Your task to perform on an android device: open chrome and create a bookmark for the current page Image 0: 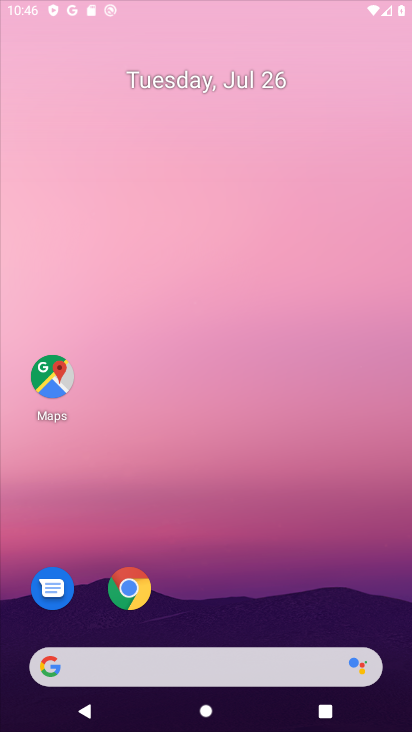
Step 0: press home button
Your task to perform on an android device: open chrome and create a bookmark for the current page Image 1: 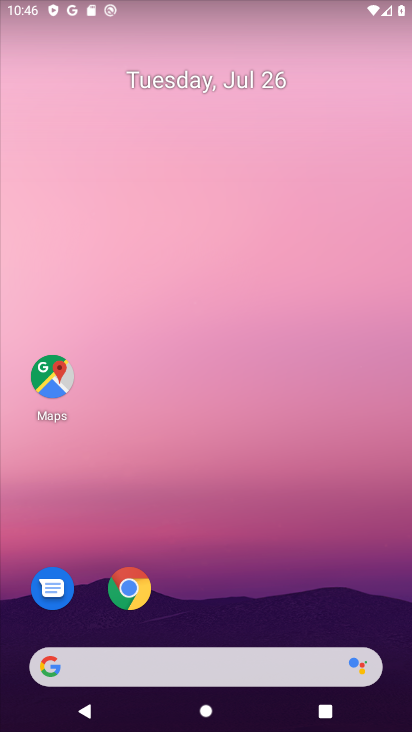
Step 1: drag from (197, 626) to (234, 5)
Your task to perform on an android device: open chrome and create a bookmark for the current page Image 2: 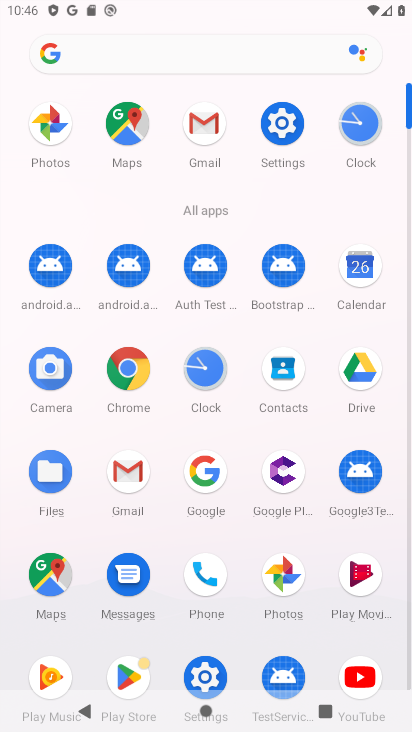
Step 2: click (128, 368)
Your task to perform on an android device: open chrome and create a bookmark for the current page Image 3: 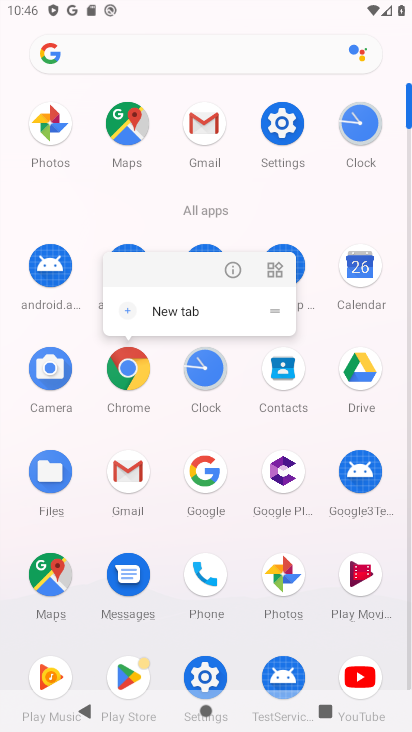
Step 3: click (124, 361)
Your task to perform on an android device: open chrome and create a bookmark for the current page Image 4: 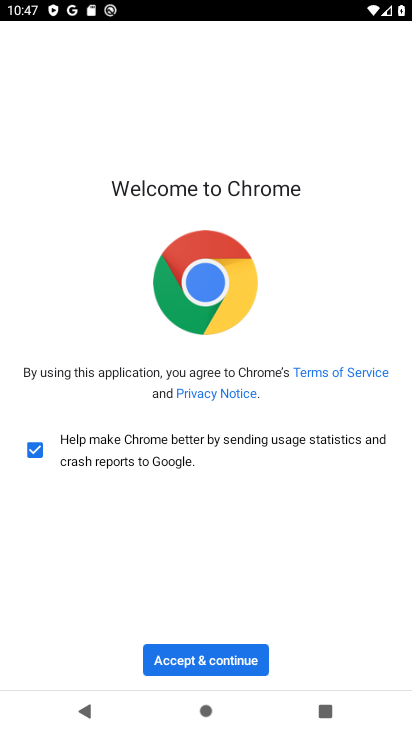
Step 4: click (200, 654)
Your task to perform on an android device: open chrome and create a bookmark for the current page Image 5: 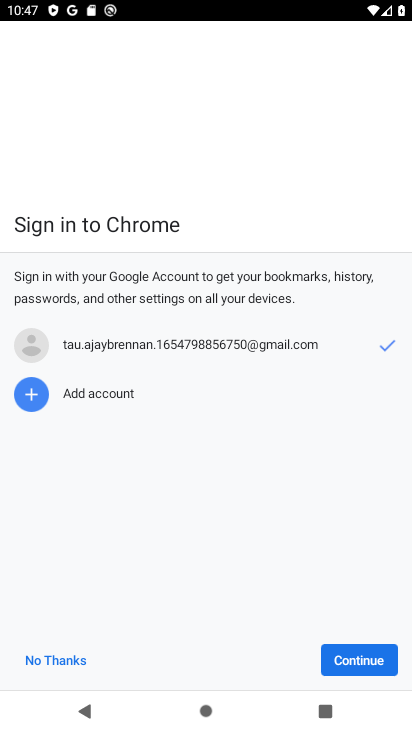
Step 5: click (360, 658)
Your task to perform on an android device: open chrome and create a bookmark for the current page Image 6: 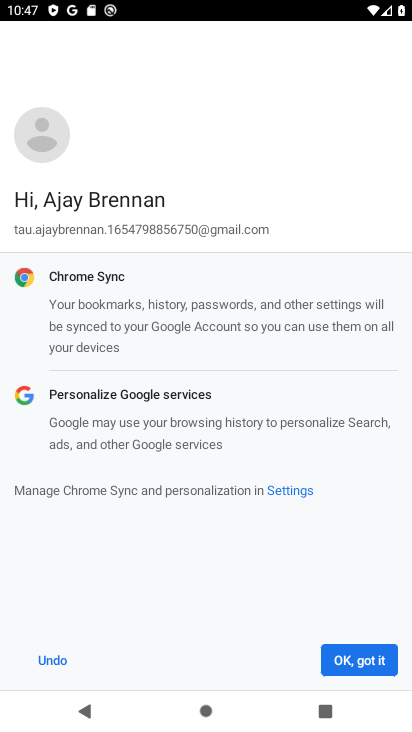
Step 6: click (353, 657)
Your task to perform on an android device: open chrome and create a bookmark for the current page Image 7: 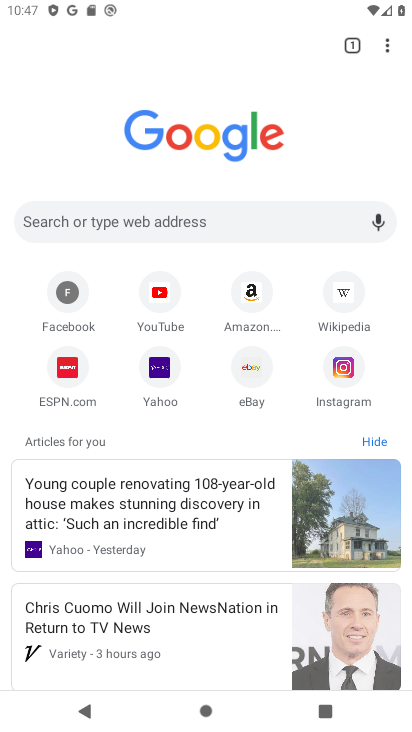
Step 7: click (388, 41)
Your task to perform on an android device: open chrome and create a bookmark for the current page Image 8: 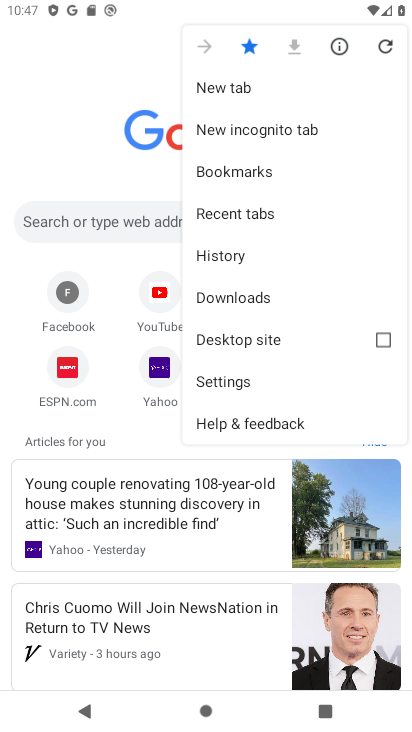
Step 8: task complete